Your task to perform on an android device: Open calendar and show me the first week of next month Image 0: 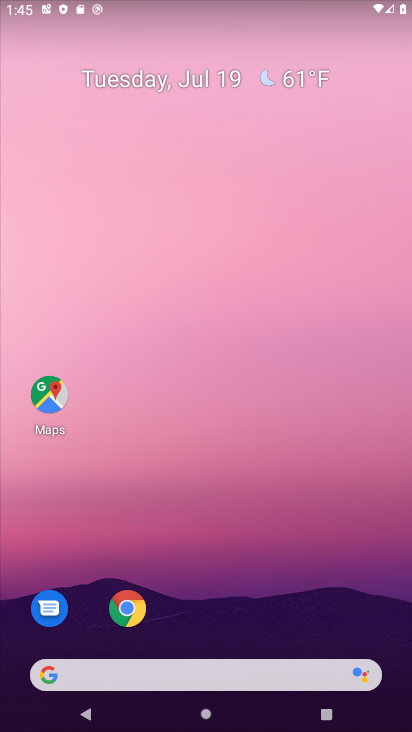
Step 0: drag from (274, 486) to (360, 59)
Your task to perform on an android device: Open calendar and show me the first week of next month Image 1: 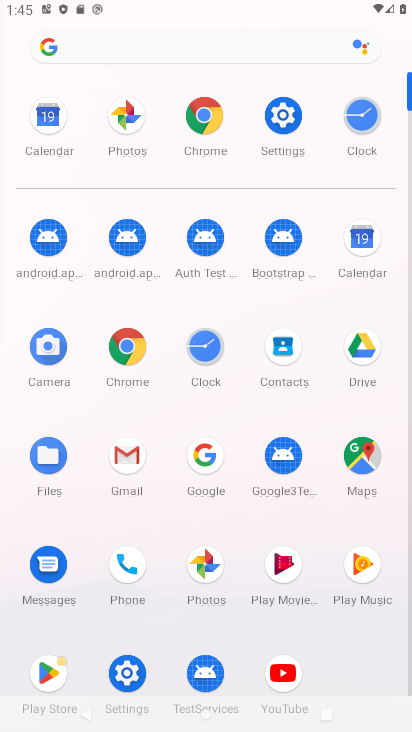
Step 1: click (365, 248)
Your task to perform on an android device: Open calendar and show me the first week of next month Image 2: 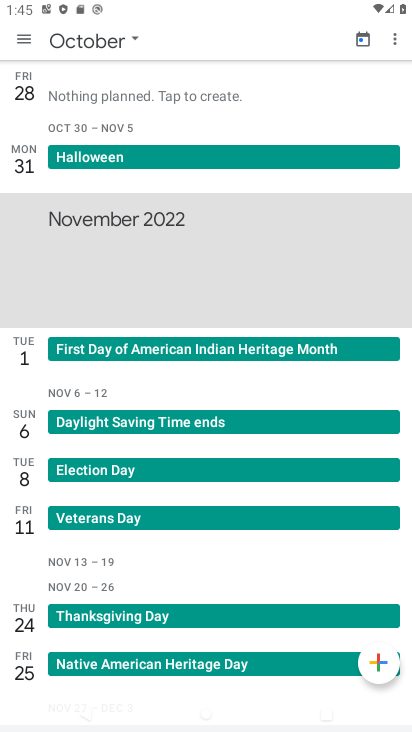
Step 2: click (84, 38)
Your task to perform on an android device: Open calendar and show me the first week of next month Image 3: 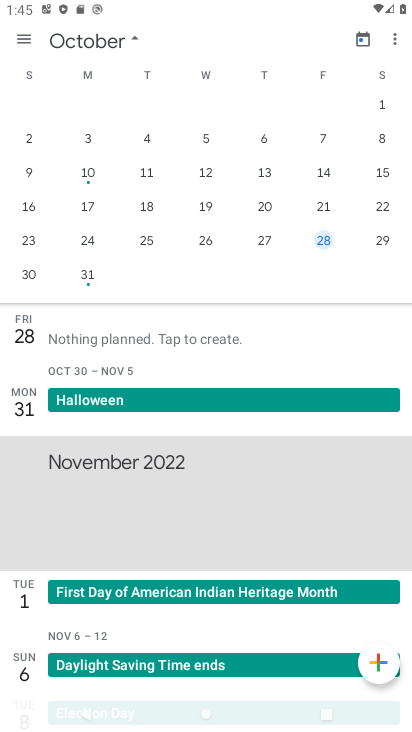
Step 3: drag from (295, 245) to (3, 400)
Your task to perform on an android device: Open calendar and show me the first week of next month Image 4: 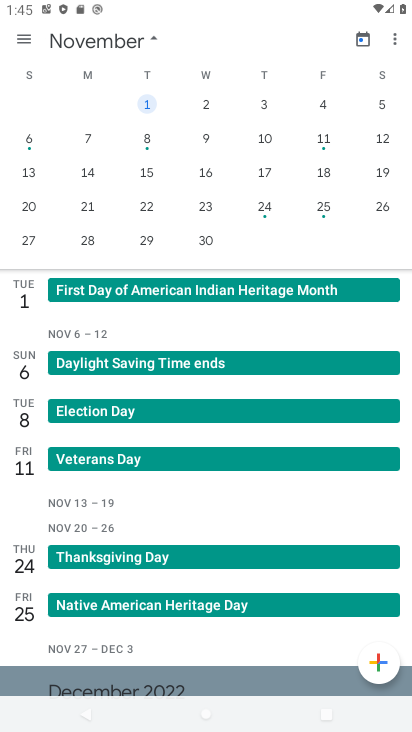
Step 4: click (83, 138)
Your task to perform on an android device: Open calendar and show me the first week of next month Image 5: 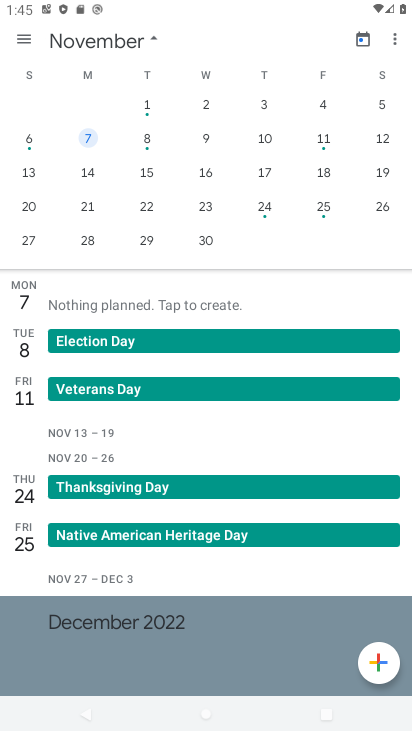
Step 5: task complete